Your task to perform on an android device: Go to location settings Image 0: 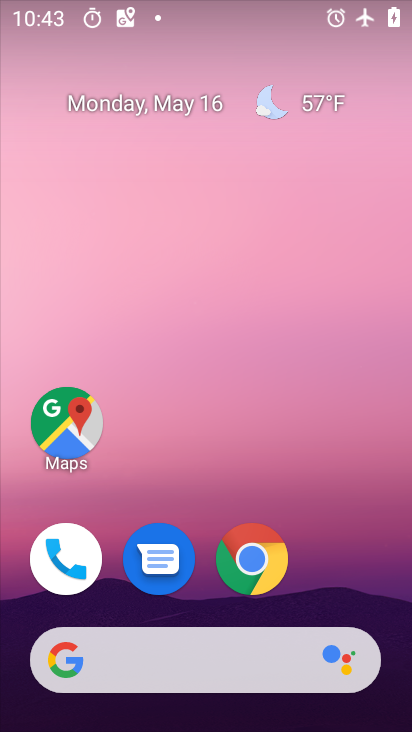
Step 0: drag from (355, 598) to (289, 90)
Your task to perform on an android device: Go to location settings Image 1: 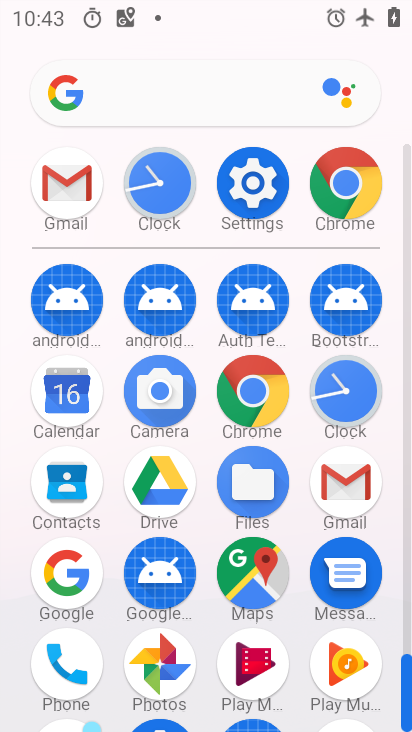
Step 1: click (245, 181)
Your task to perform on an android device: Go to location settings Image 2: 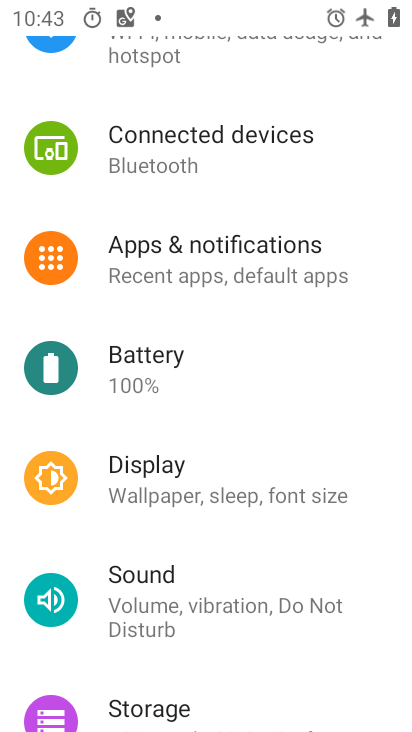
Step 2: drag from (191, 571) to (281, 156)
Your task to perform on an android device: Go to location settings Image 3: 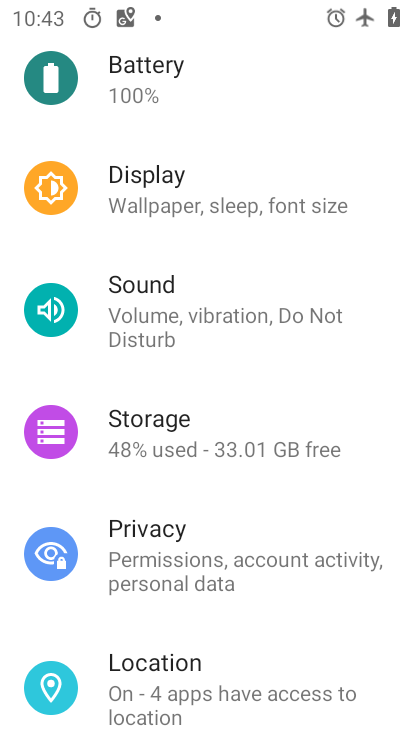
Step 3: click (138, 675)
Your task to perform on an android device: Go to location settings Image 4: 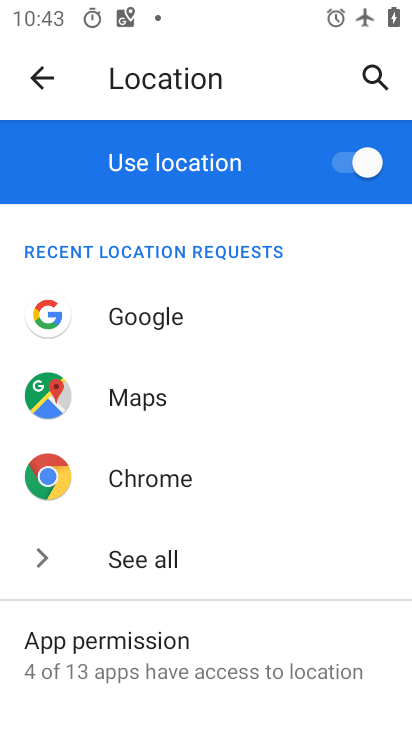
Step 4: task complete